Your task to perform on an android device: Open Google Maps and go to "Timeline" Image 0: 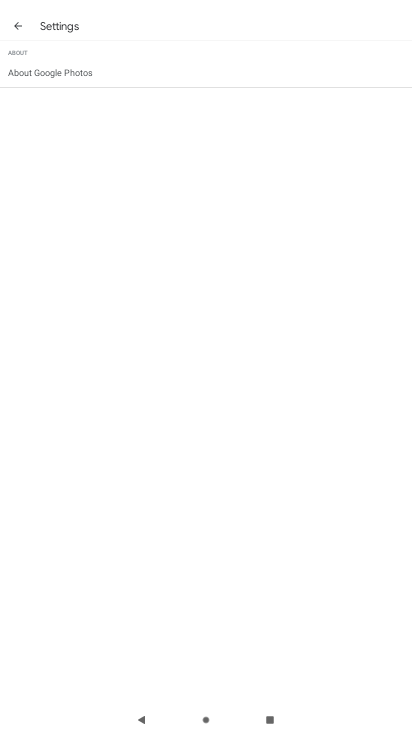
Step 0: press home button
Your task to perform on an android device: Open Google Maps and go to "Timeline" Image 1: 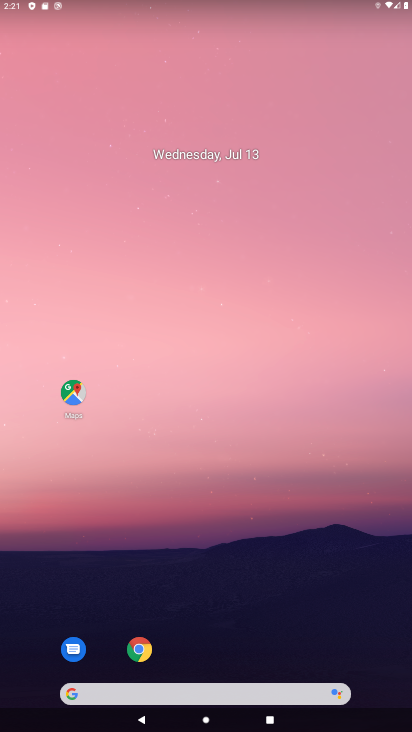
Step 1: click (74, 390)
Your task to perform on an android device: Open Google Maps and go to "Timeline" Image 2: 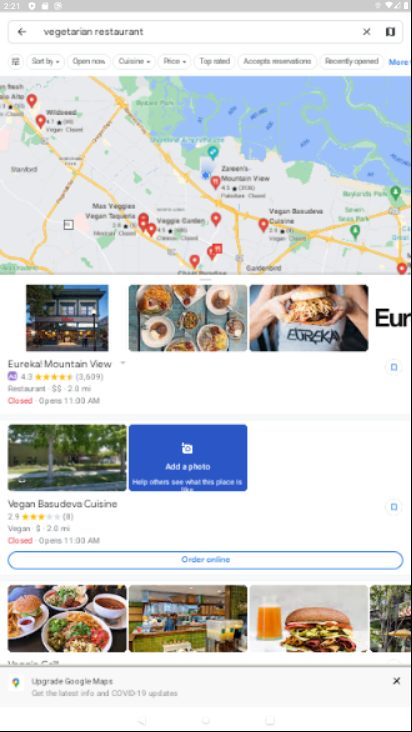
Step 2: click (21, 31)
Your task to perform on an android device: Open Google Maps and go to "Timeline" Image 3: 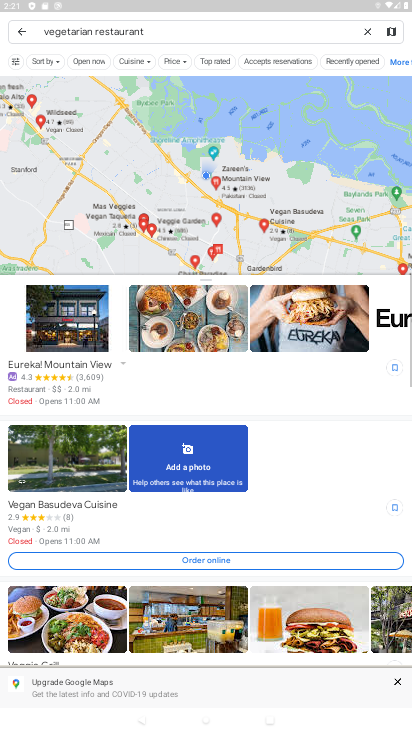
Step 3: click (25, 29)
Your task to perform on an android device: Open Google Maps and go to "Timeline" Image 4: 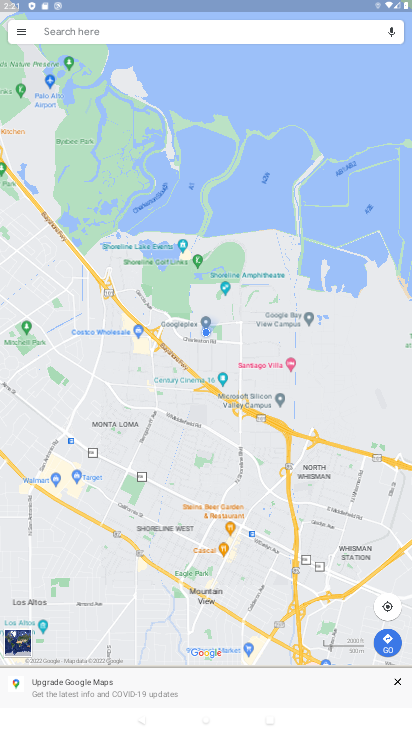
Step 4: click (16, 31)
Your task to perform on an android device: Open Google Maps and go to "Timeline" Image 5: 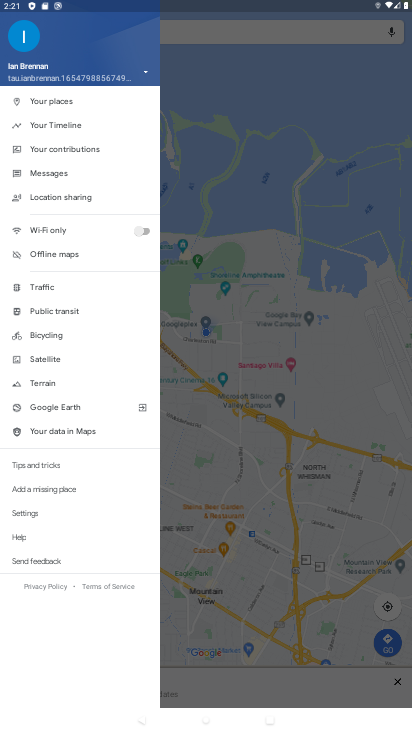
Step 5: click (71, 122)
Your task to perform on an android device: Open Google Maps and go to "Timeline" Image 6: 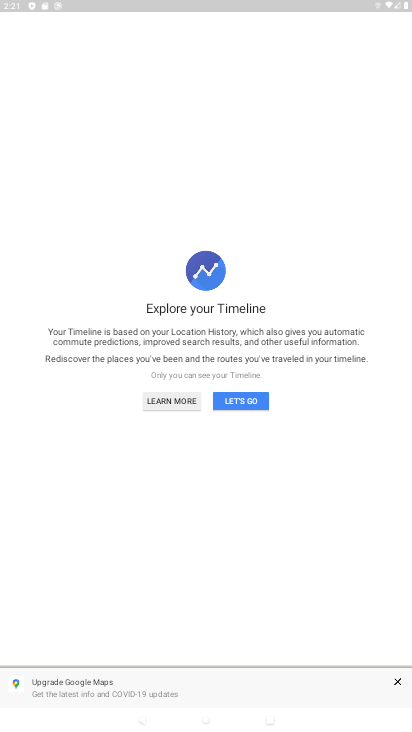
Step 6: click (231, 400)
Your task to perform on an android device: Open Google Maps and go to "Timeline" Image 7: 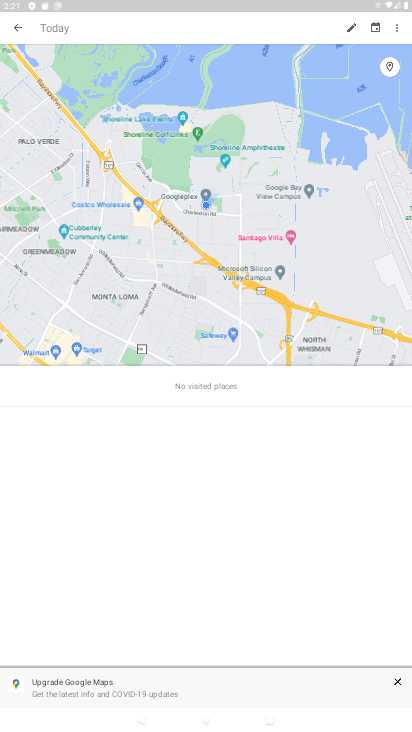
Step 7: task complete